Your task to perform on an android device: set the stopwatch Image 0: 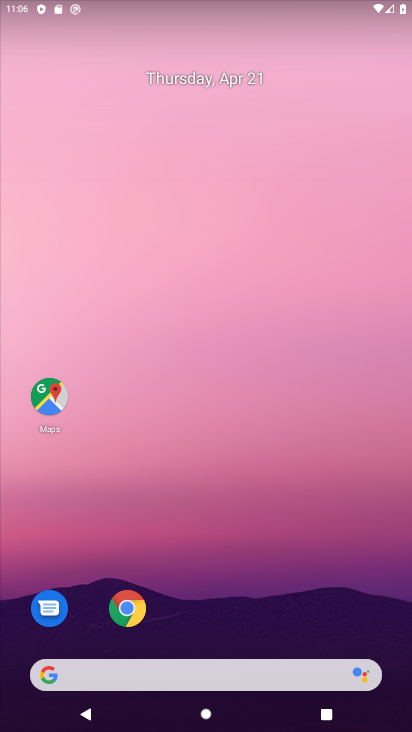
Step 0: drag from (272, 654) to (330, 303)
Your task to perform on an android device: set the stopwatch Image 1: 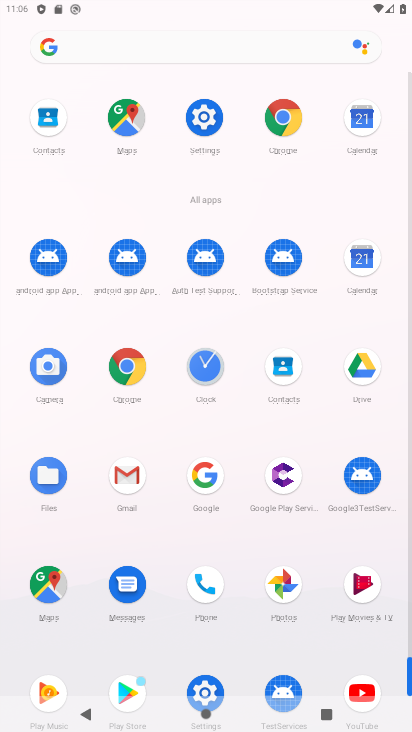
Step 1: click (195, 373)
Your task to perform on an android device: set the stopwatch Image 2: 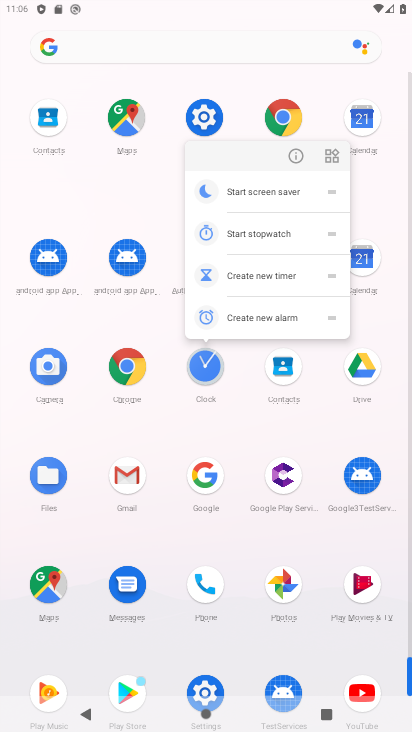
Step 2: click (298, 153)
Your task to perform on an android device: set the stopwatch Image 3: 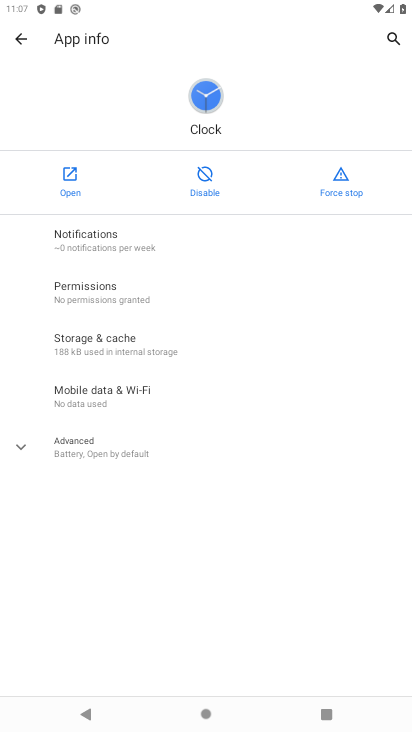
Step 3: click (71, 184)
Your task to perform on an android device: set the stopwatch Image 4: 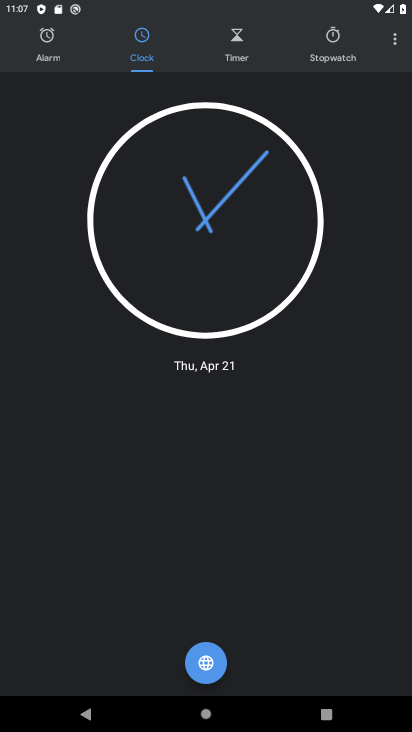
Step 4: click (333, 60)
Your task to perform on an android device: set the stopwatch Image 5: 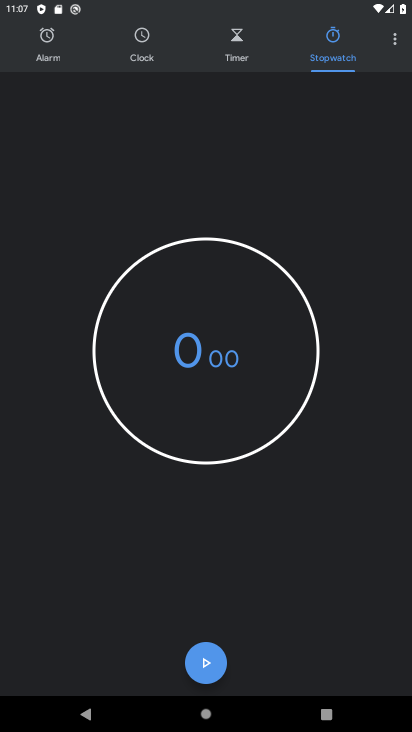
Step 5: task complete